Your task to perform on an android device: turn on airplane mode Image 0: 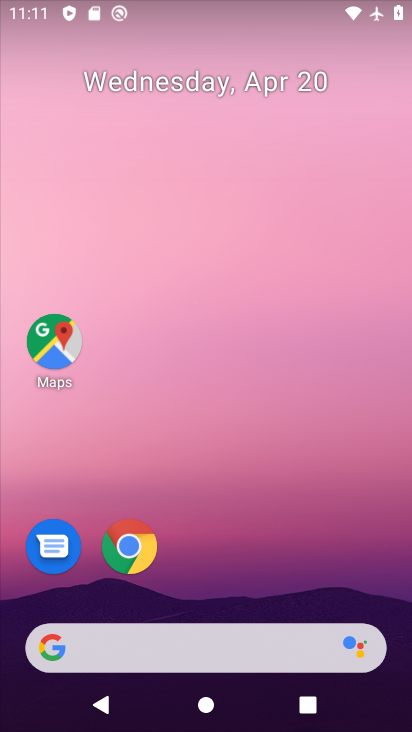
Step 0: drag from (201, 647) to (248, 146)
Your task to perform on an android device: turn on airplane mode Image 1: 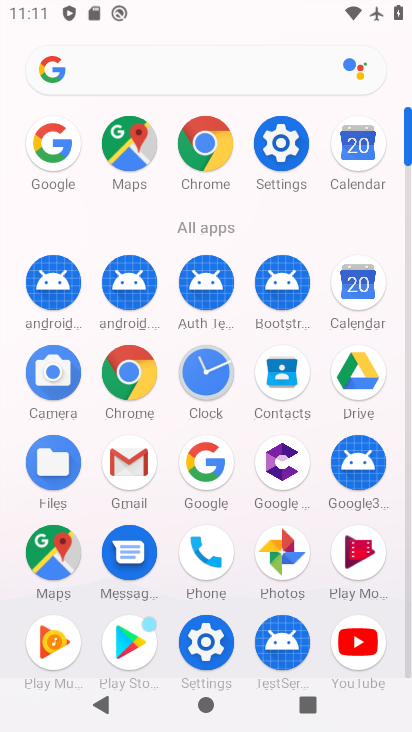
Step 1: click (283, 141)
Your task to perform on an android device: turn on airplane mode Image 2: 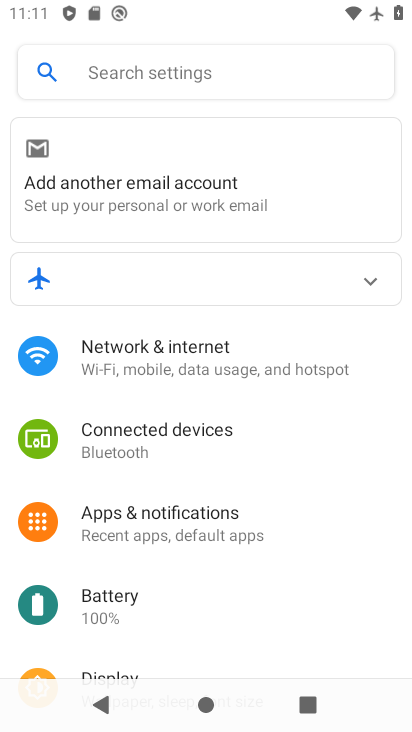
Step 2: click (218, 350)
Your task to perform on an android device: turn on airplane mode Image 3: 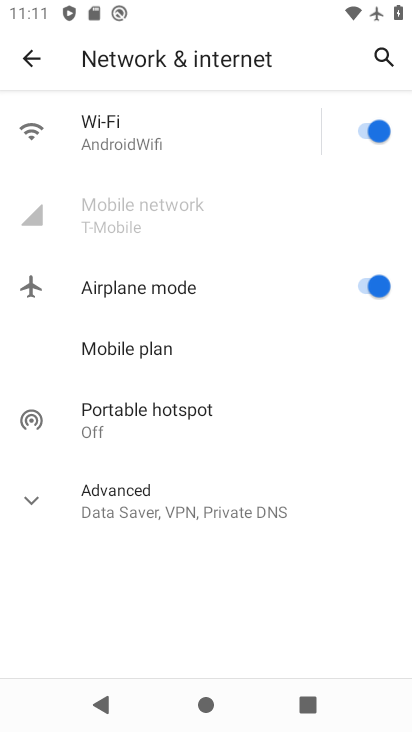
Step 3: task complete